Your task to perform on an android device: stop showing notifications on the lock screen Image 0: 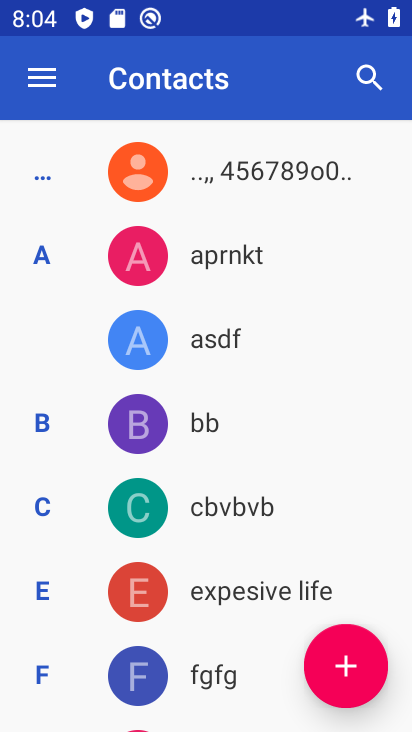
Step 0: press home button
Your task to perform on an android device: stop showing notifications on the lock screen Image 1: 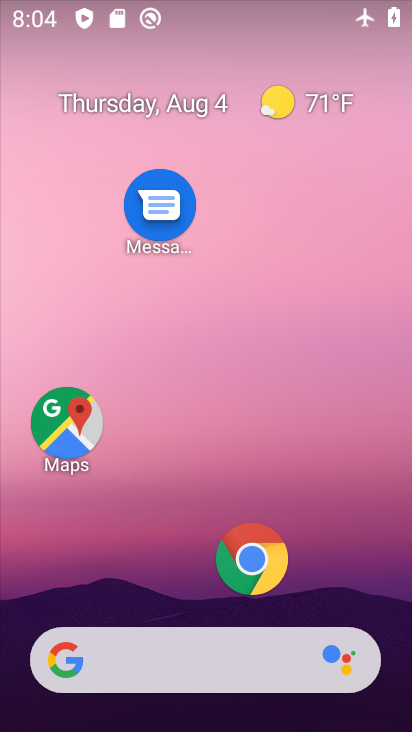
Step 1: drag from (214, 588) to (157, 22)
Your task to perform on an android device: stop showing notifications on the lock screen Image 2: 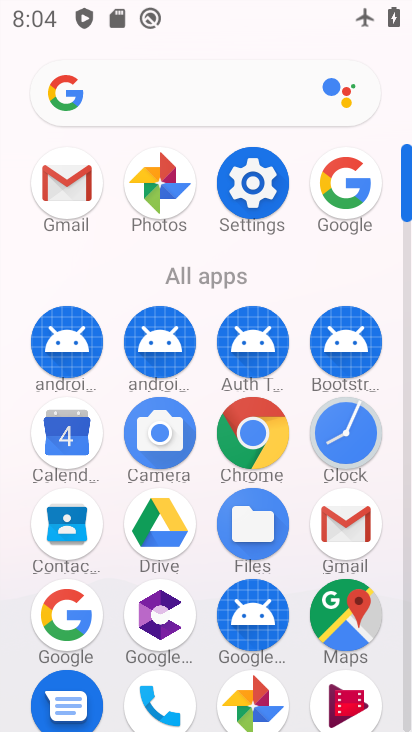
Step 2: click (261, 192)
Your task to perform on an android device: stop showing notifications on the lock screen Image 3: 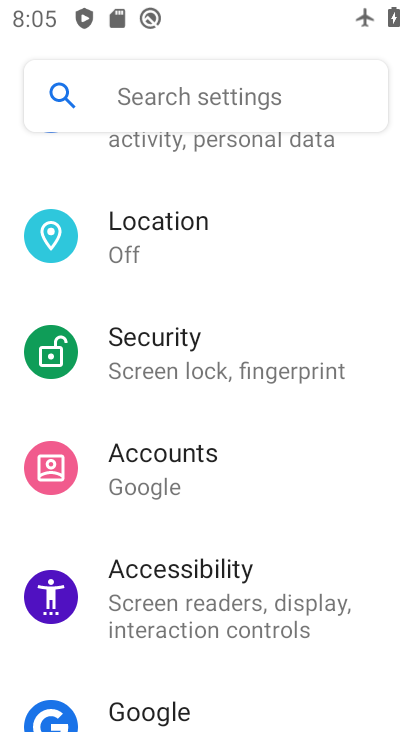
Step 3: drag from (255, 255) to (274, 451)
Your task to perform on an android device: stop showing notifications on the lock screen Image 4: 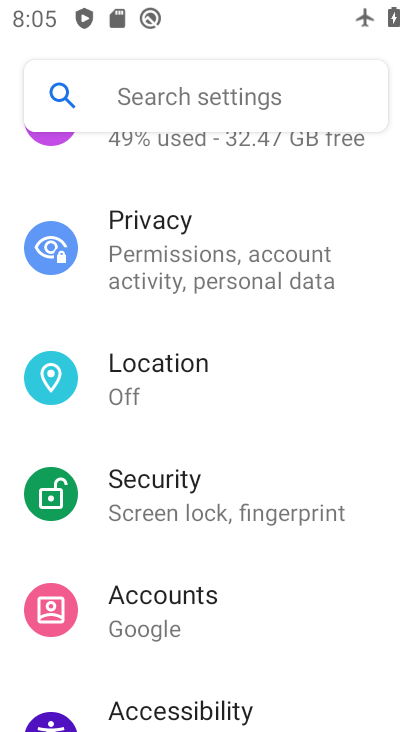
Step 4: drag from (231, 223) to (200, 564)
Your task to perform on an android device: stop showing notifications on the lock screen Image 5: 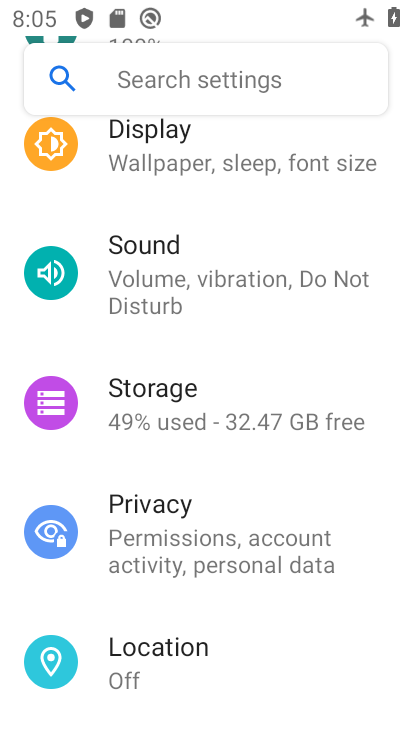
Step 5: drag from (194, 233) to (163, 565)
Your task to perform on an android device: stop showing notifications on the lock screen Image 6: 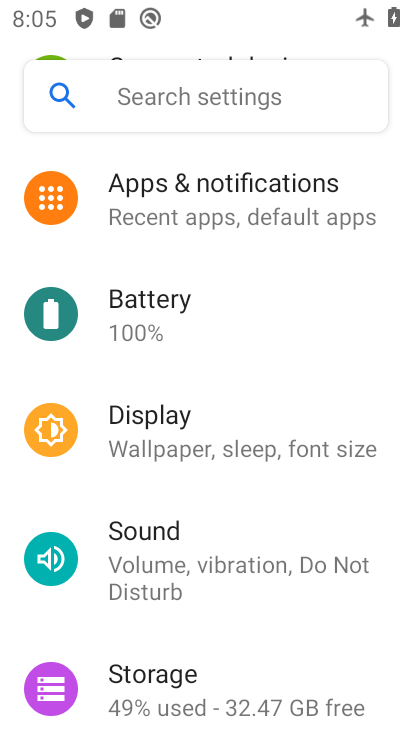
Step 6: click (153, 184)
Your task to perform on an android device: stop showing notifications on the lock screen Image 7: 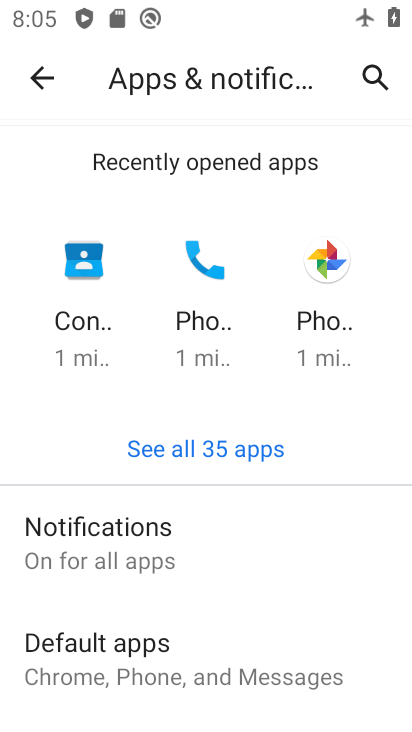
Step 7: drag from (217, 577) to (217, 183)
Your task to perform on an android device: stop showing notifications on the lock screen Image 8: 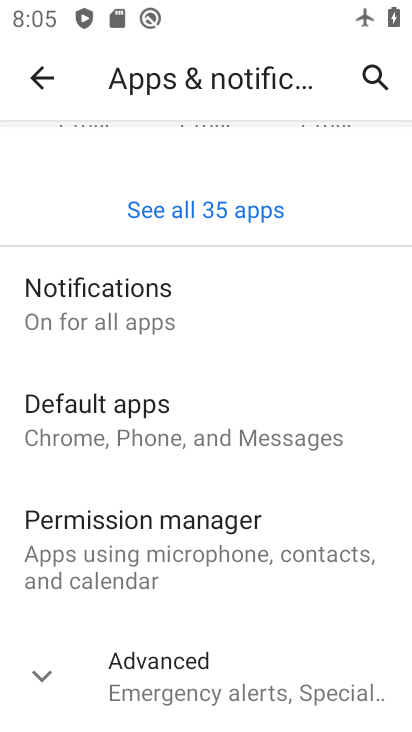
Step 8: click (160, 318)
Your task to perform on an android device: stop showing notifications on the lock screen Image 9: 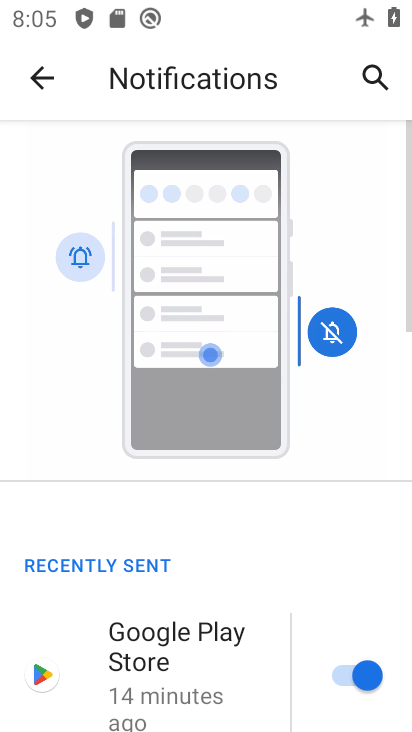
Step 9: drag from (306, 599) to (275, 0)
Your task to perform on an android device: stop showing notifications on the lock screen Image 10: 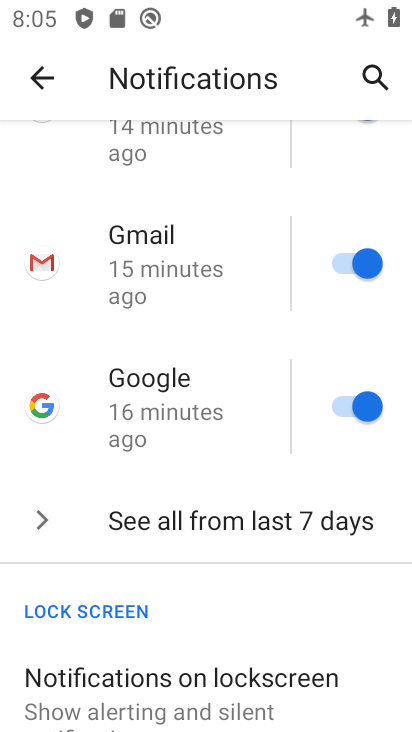
Step 10: click (221, 647)
Your task to perform on an android device: stop showing notifications on the lock screen Image 11: 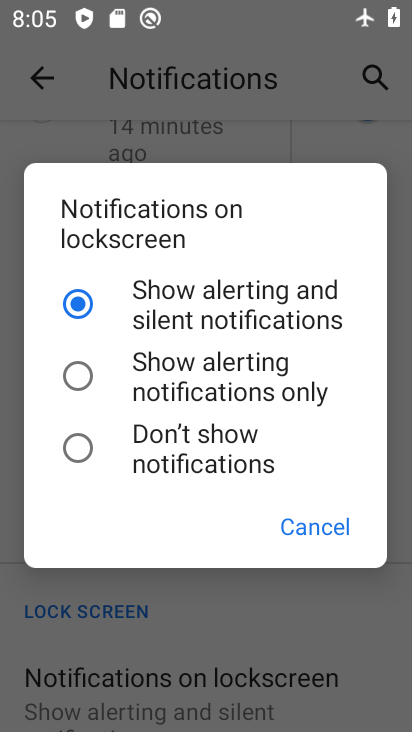
Step 11: click (122, 443)
Your task to perform on an android device: stop showing notifications on the lock screen Image 12: 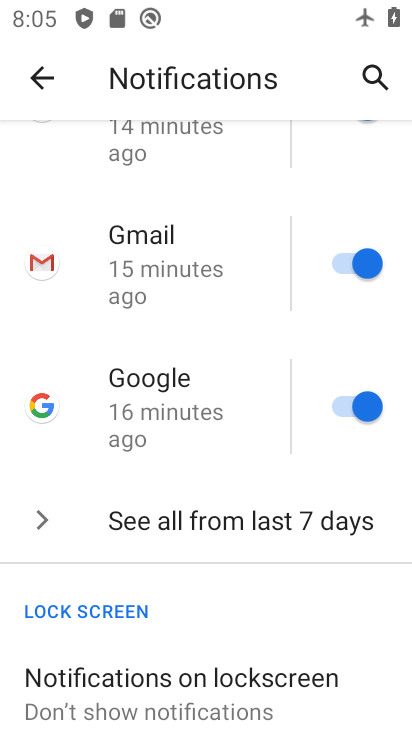
Step 12: task complete